Your task to perform on an android device: Open internet settings Image 0: 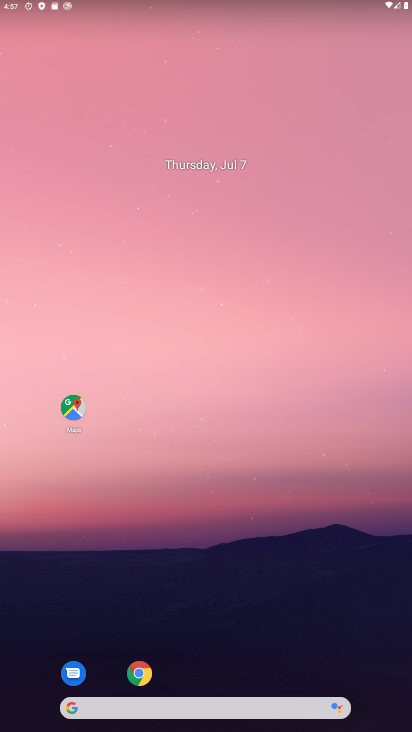
Step 0: drag from (229, 687) to (334, 163)
Your task to perform on an android device: Open internet settings Image 1: 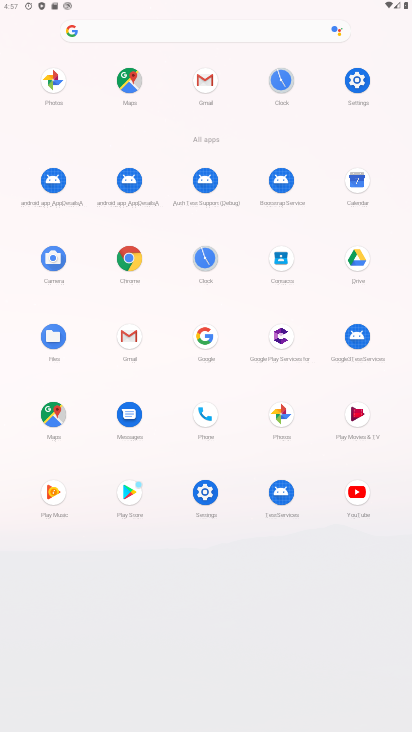
Step 1: click (348, 89)
Your task to perform on an android device: Open internet settings Image 2: 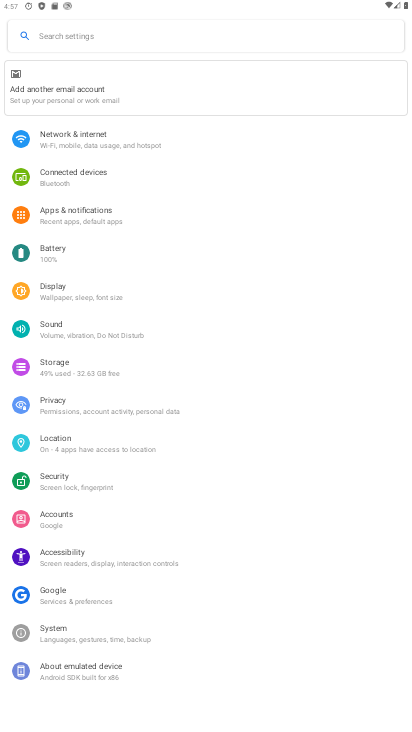
Step 2: click (139, 146)
Your task to perform on an android device: Open internet settings Image 3: 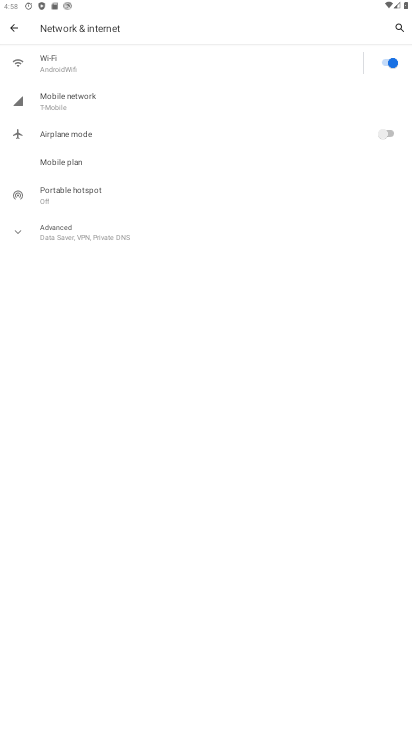
Step 3: click (74, 98)
Your task to perform on an android device: Open internet settings Image 4: 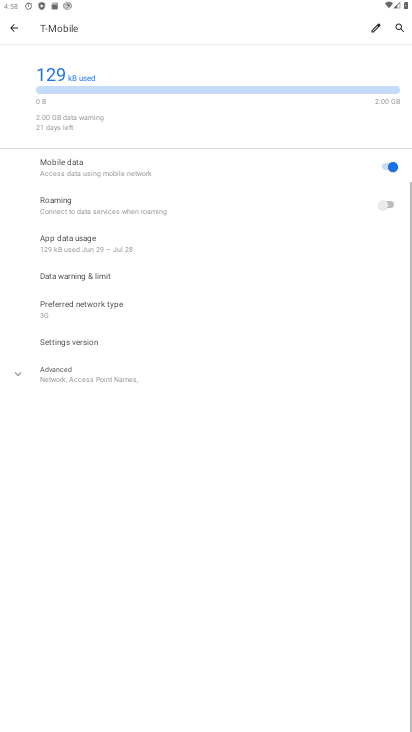
Step 4: task complete